Your task to perform on an android device: open the mobile data screen to see how much data has been used Image 0: 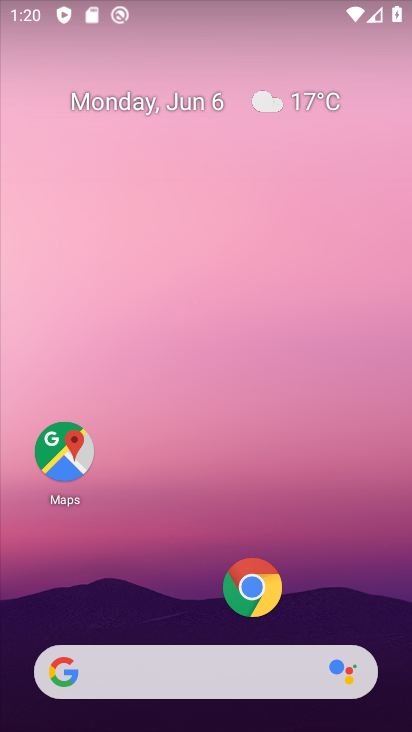
Step 0: click (357, 429)
Your task to perform on an android device: open the mobile data screen to see how much data has been used Image 1: 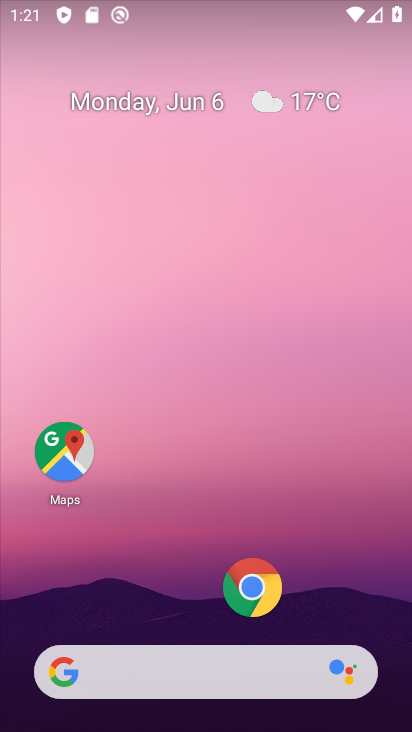
Step 1: drag from (177, 600) to (249, 8)
Your task to perform on an android device: open the mobile data screen to see how much data has been used Image 2: 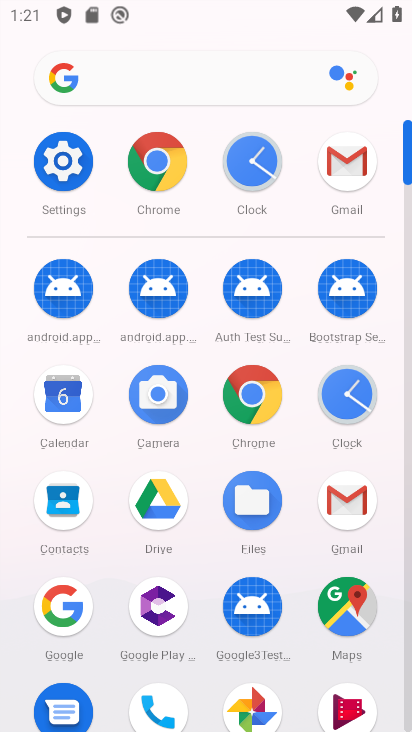
Step 2: click (66, 177)
Your task to perform on an android device: open the mobile data screen to see how much data has been used Image 3: 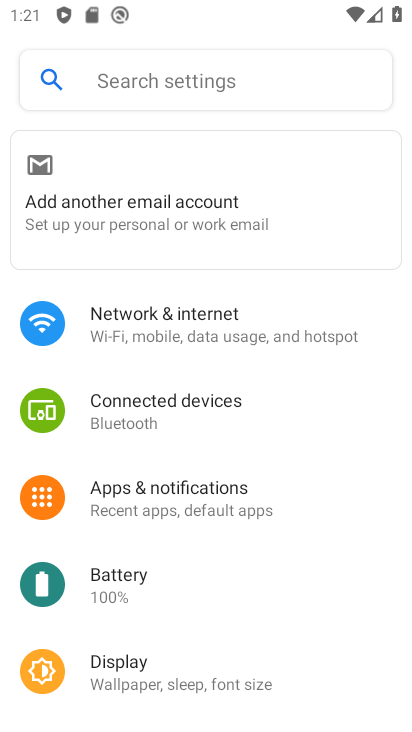
Step 3: click (221, 334)
Your task to perform on an android device: open the mobile data screen to see how much data has been used Image 4: 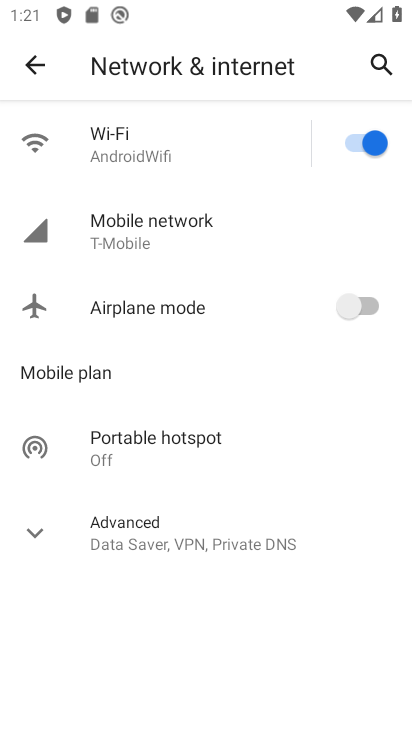
Step 4: click (198, 240)
Your task to perform on an android device: open the mobile data screen to see how much data has been used Image 5: 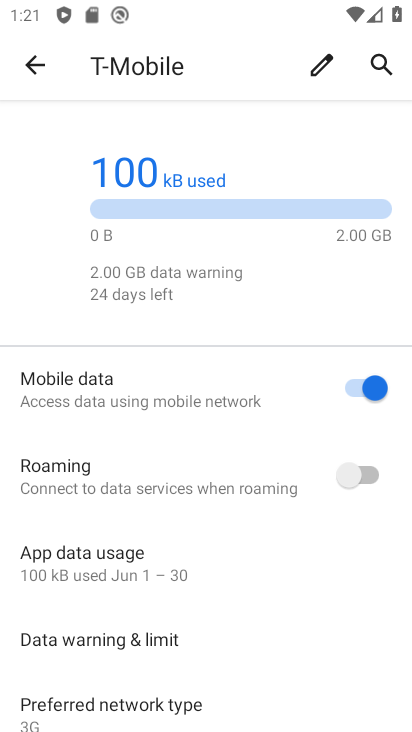
Step 5: click (134, 569)
Your task to perform on an android device: open the mobile data screen to see how much data has been used Image 6: 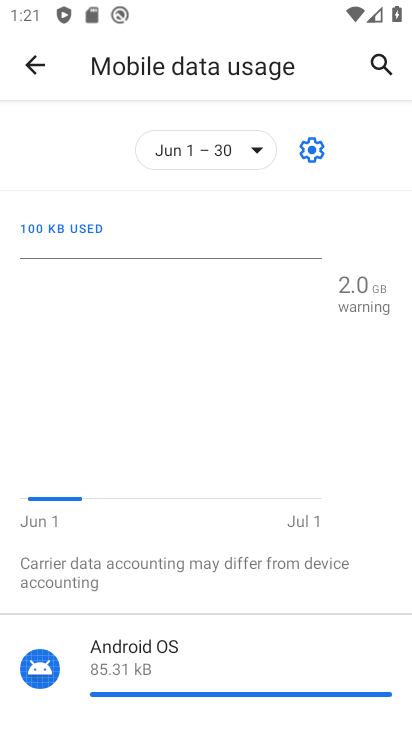
Step 6: task complete